Your task to perform on an android device: Open calendar and show me the second week of next month Image 0: 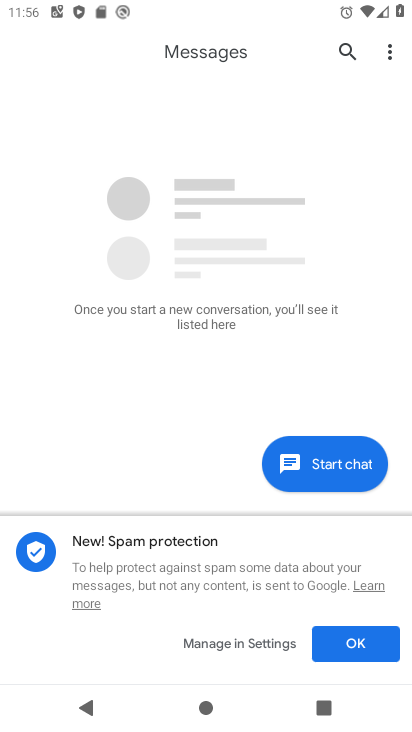
Step 0: press home button
Your task to perform on an android device: Open calendar and show me the second week of next month Image 1: 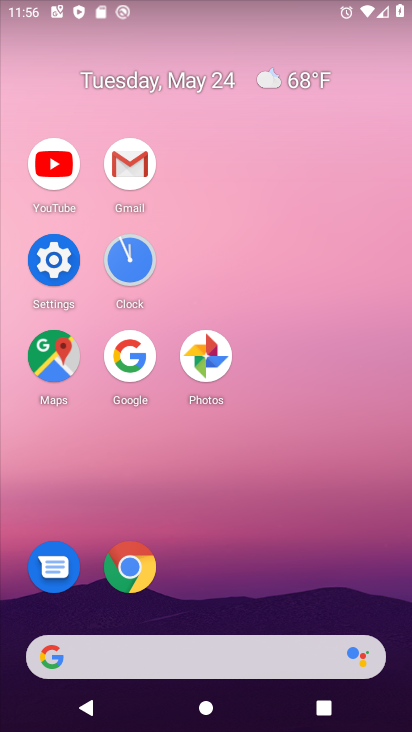
Step 1: drag from (257, 527) to (267, 70)
Your task to perform on an android device: Open calendar and show me the second week of next month Image 2: 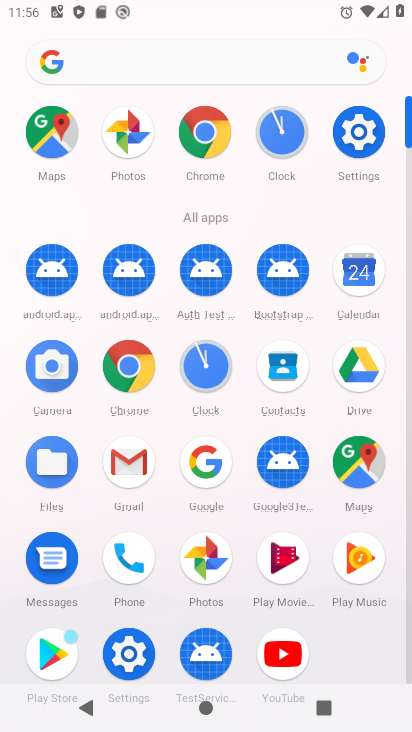
Step 2: drag from (349, 276) to (220, 256)
Your task to perform on an android device: Open calendar and show me the second week of next month Image 3: 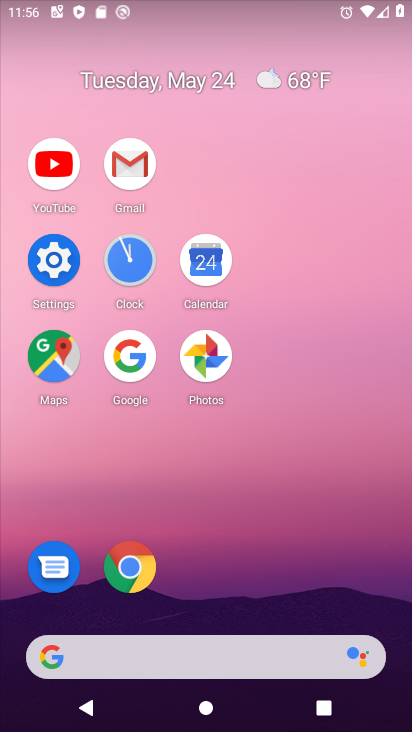
Step 3: click (211, 264)
Your task to perform on an android device: Open calendar and show me the second week of next month Image 4: 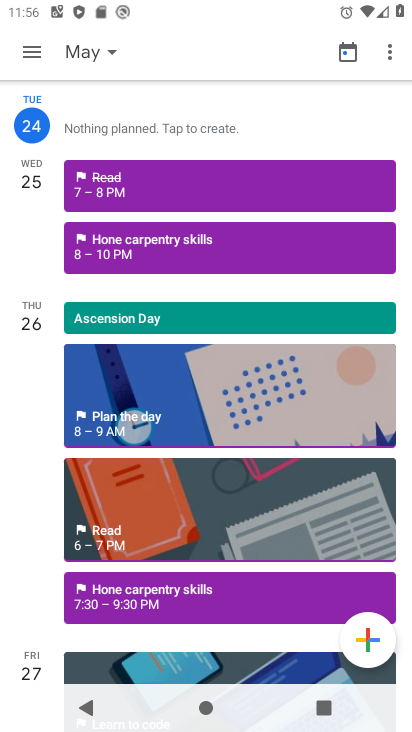
Step 4: click (87, 74)
Your task to perform on an android device: Open calendar and show me the second week of next month Image 5: 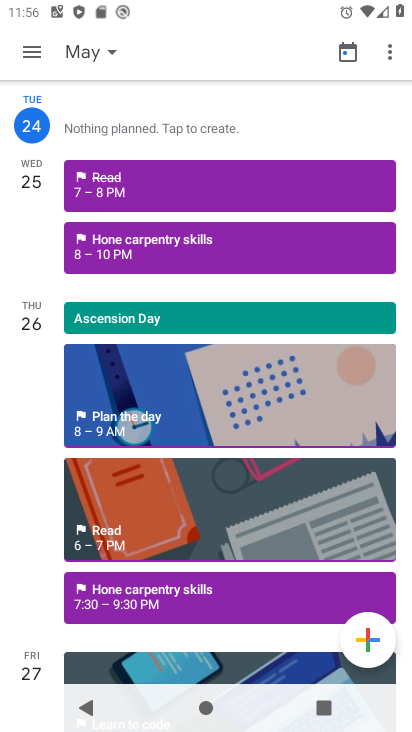
Step 5: click (99, 54)
Your task to perform on an android device: Open calendar and show me the second week of next month Image 6: 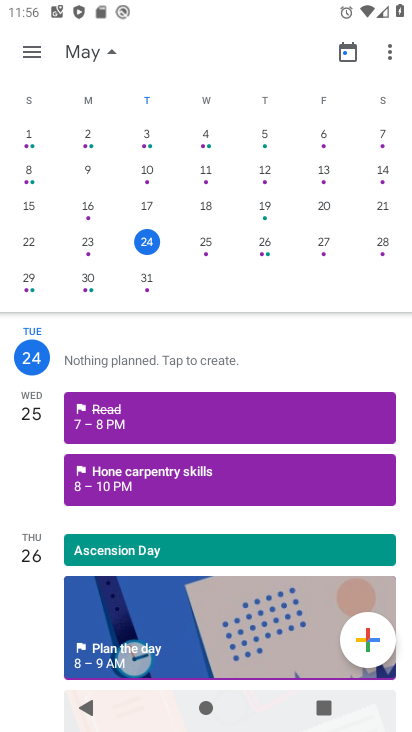
Step 6: drag from (383, 208) to (29, 24)
Your task to perform on an android device: Open calendar and show me the second week of next month Image 7: 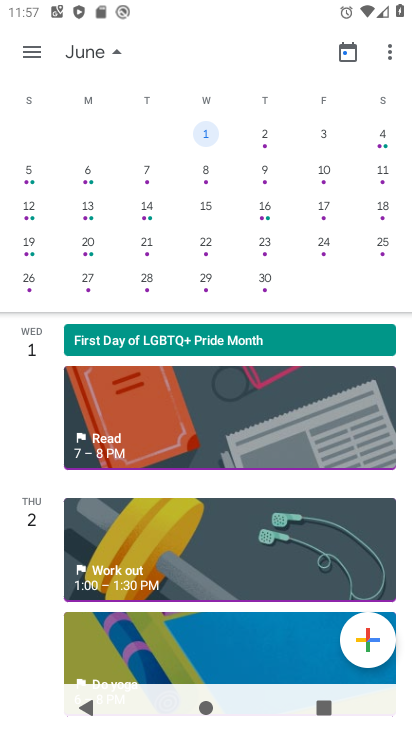
Step 7: drag from (361, 197) to (7, 203)
Your task to perform on an android device: Open calendar and show me the second week of next month Image 8: 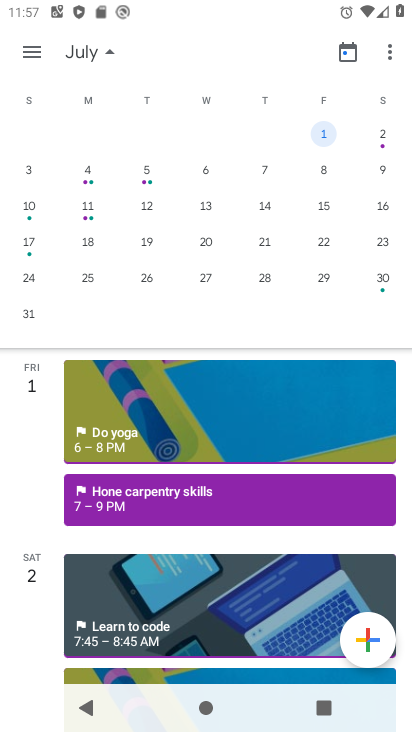
Step 8: click (30, 53)
Your task to perform on an android device: Open calendar and show me the second week of next month Image 9: 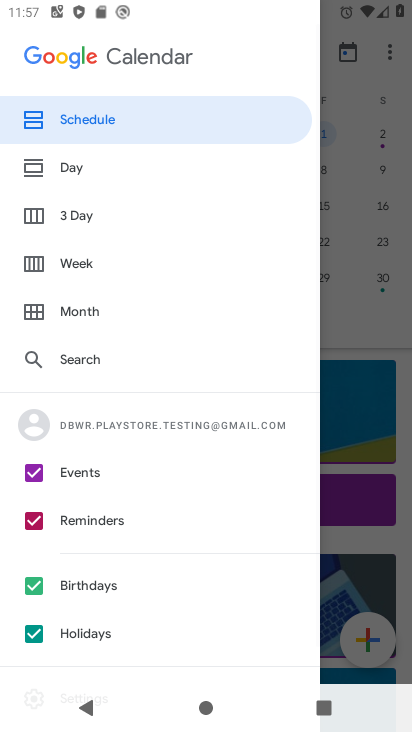
Step 9: click (74, 270)
Your task to perform on an android device: Open calendar and show me the second week of next month Image 10: 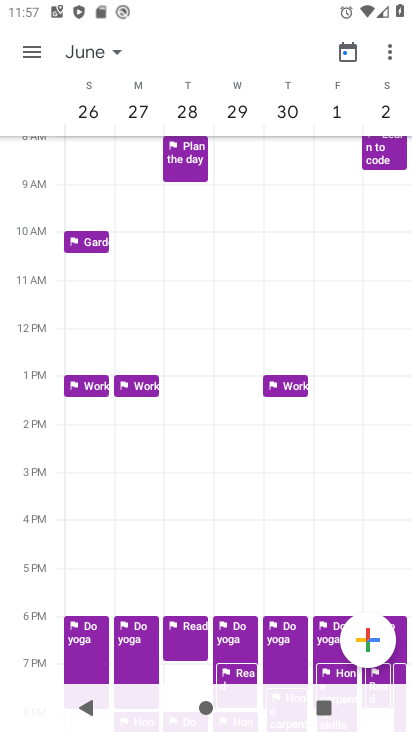
Step 10: task complete